Your task to perform on an android device: Go to location settings Image 0: 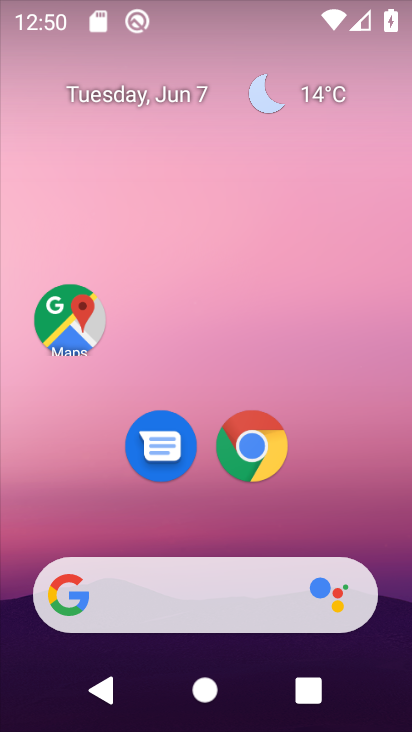
Step 0: drag from (394, 558) to (313, 2)
Your task to perform on an android device: Go to location settings Image 1: 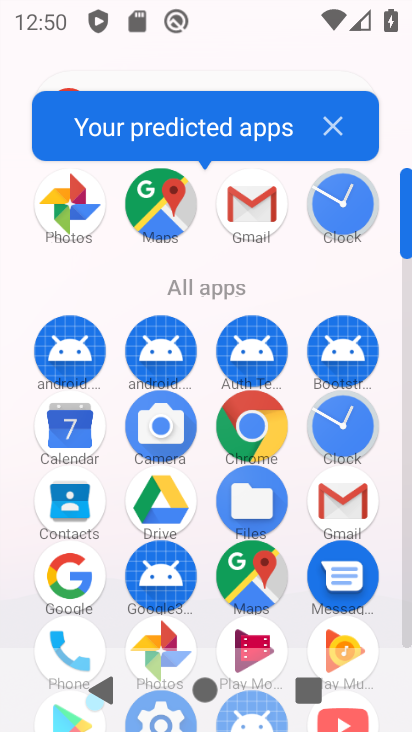
Step 1: drag from (22, 584) to (22, 294)
Your task to perform on an android device: Go to location settings Image 2: 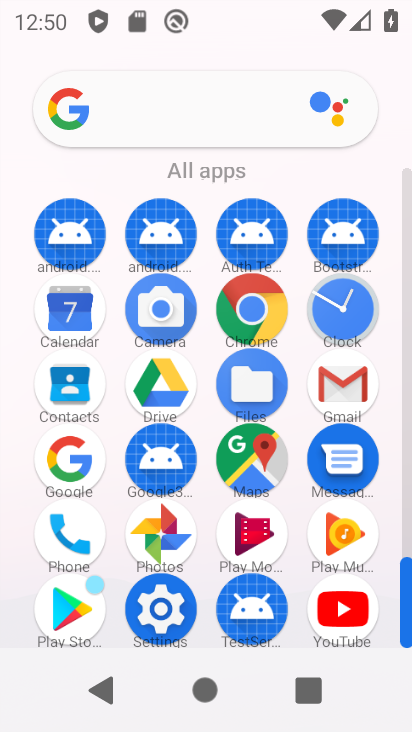
Step 2: click (161, 604)
Your task to perform on an android device: Go to location settings Image 3: 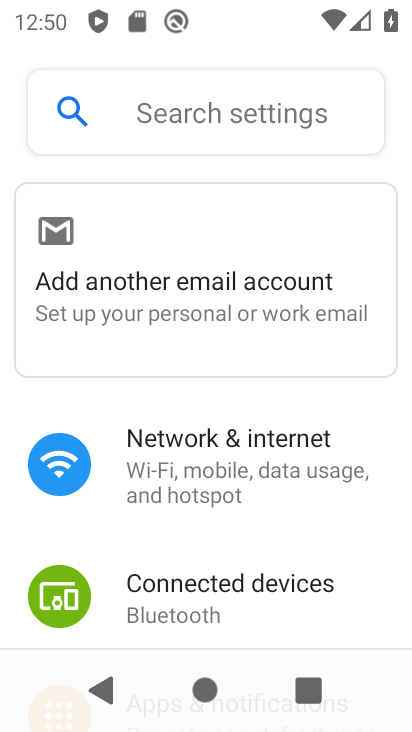
Step 3: drag from (265, 587) to (297, 151)
Your task to perform on an android device: Go to location settings Image 4: 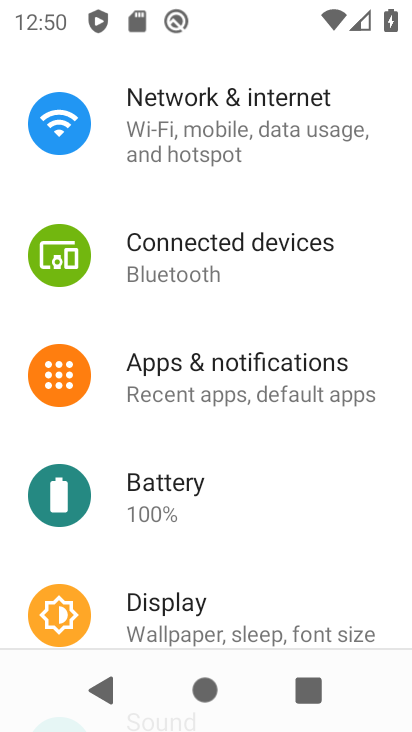
Step 4: drag from (283, 572) to (303, 192)
Your task to perform on an android device: Go to location settings Image 5: 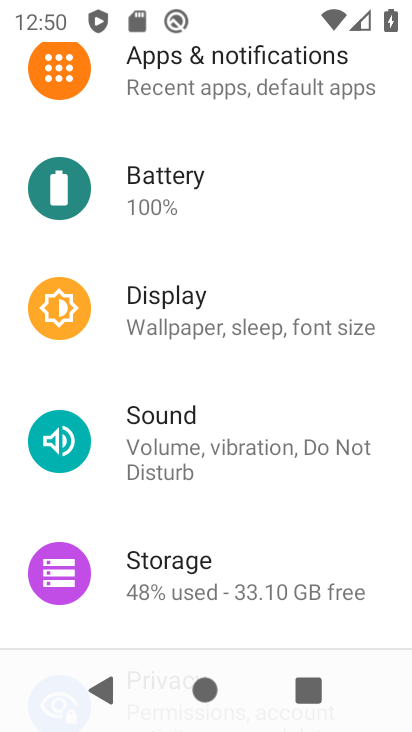
Step 5: drag from (255, 542) to (255, 192)
Your task to perform on an android device: Go to location settings Image 6: 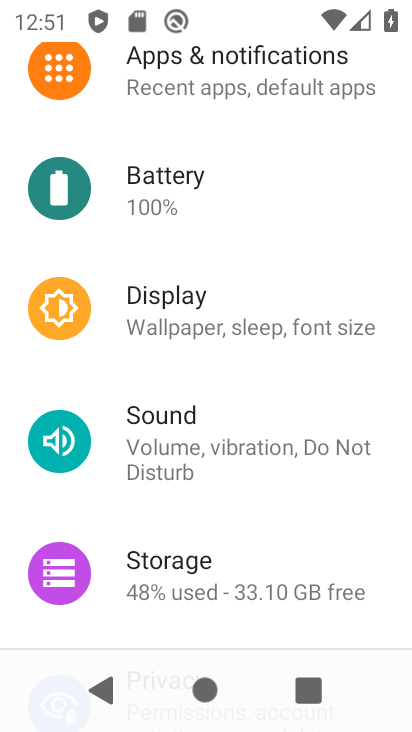
Step 6: drag from (263, 523) to (302, 226)
Your task to perform on an android device: Go to location settings Image 7: 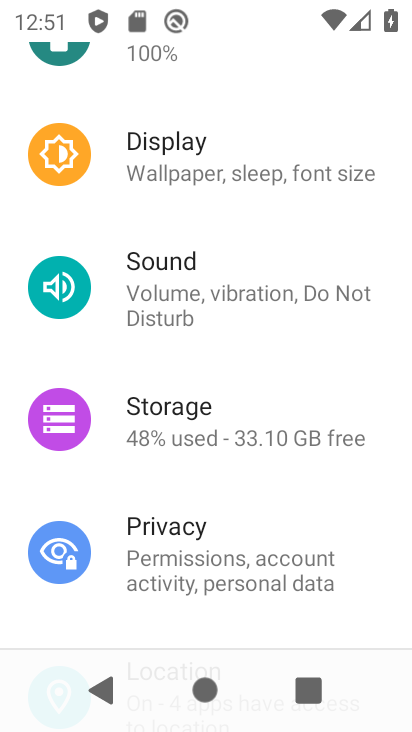
Step 7: drag from (272, 549) to (317, 172)
Your task to perform on an android device: Go to location settings Image 8: 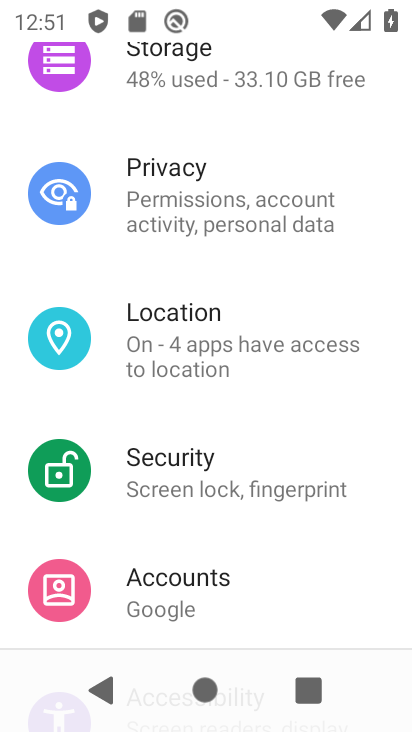
Step 8: click (230, 334)
Your task to perform on an android device: Go to location settings Image 9: 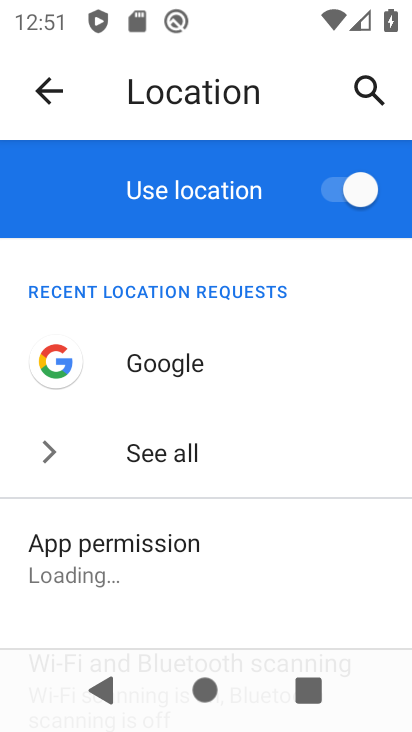
Step 9: drag from (260, 587) to (286, 231)
Your task to perform on an android device: Go to location settings Image 10: 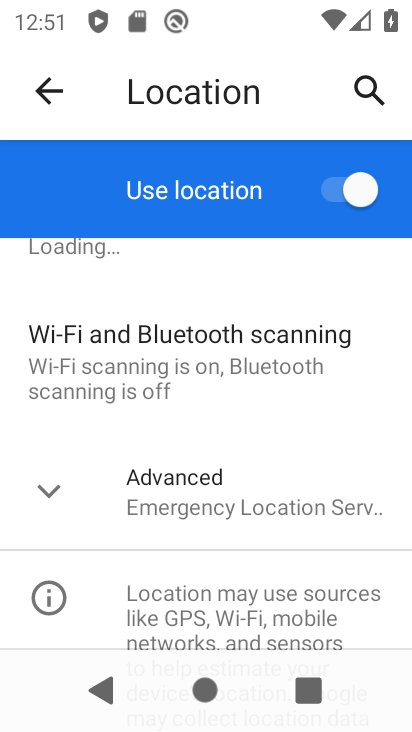
Step 10: click (50, 491)
Your task to perform on an android device: Go to location settings Image 11: 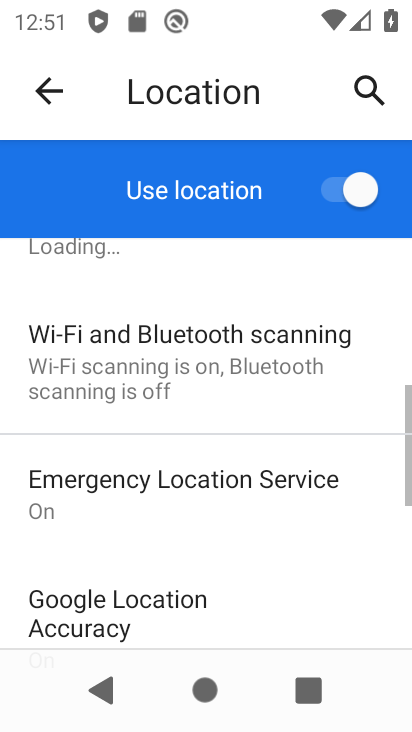
Step 11: task complete